Your task to perform on an android device: star an email in the gmail app Image 0: 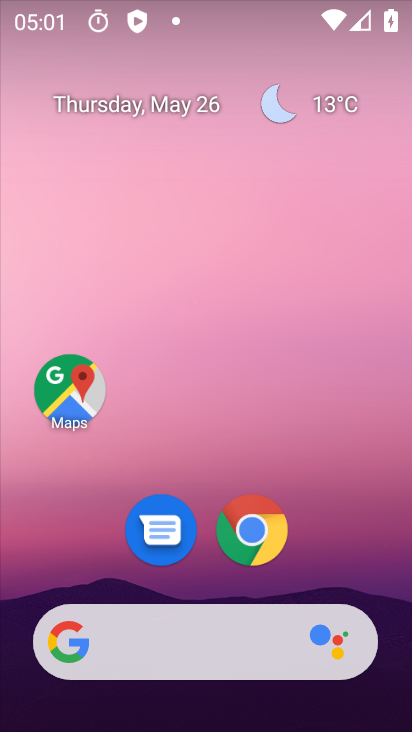
Step 0: drag from (237, 546) to (269, 5)
Your task to perform on an android device: star an email in the gmail app Image 1: 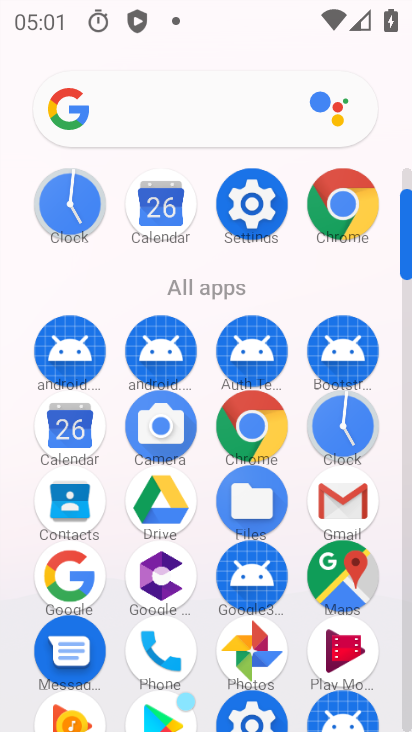
Step 1: click (334, 512)
Your task to perform on an android device: star an email in the gmail app Image 2: 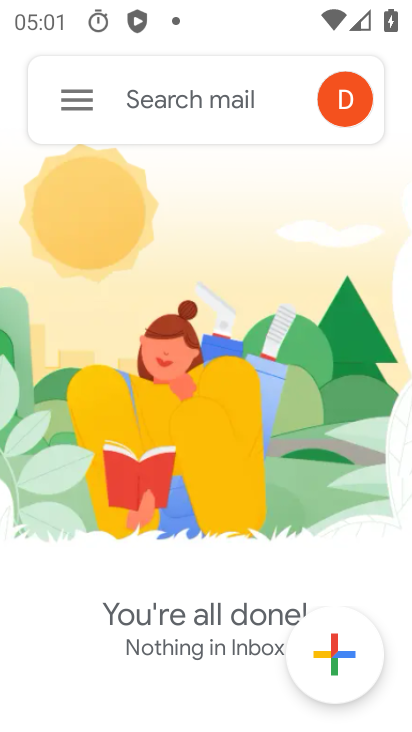
Step 2: click (109, 90)
Your task to perform on an android device: star an email in the gmail app Image 3: 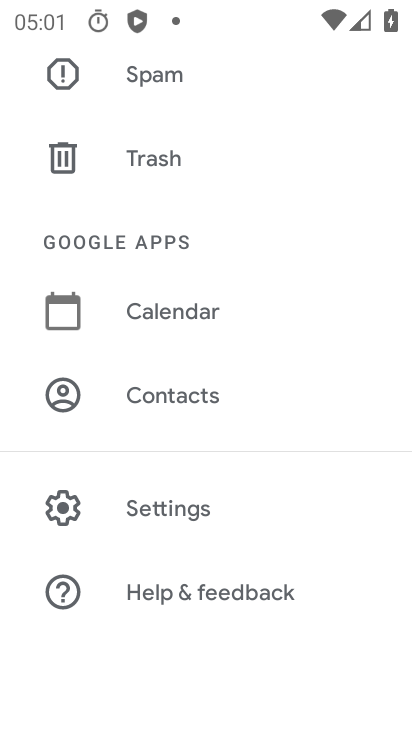
Step 3: drag from (206, 167) to (349, 720)
Your task to perform on an android device: star an email in the gmail app Image 4: 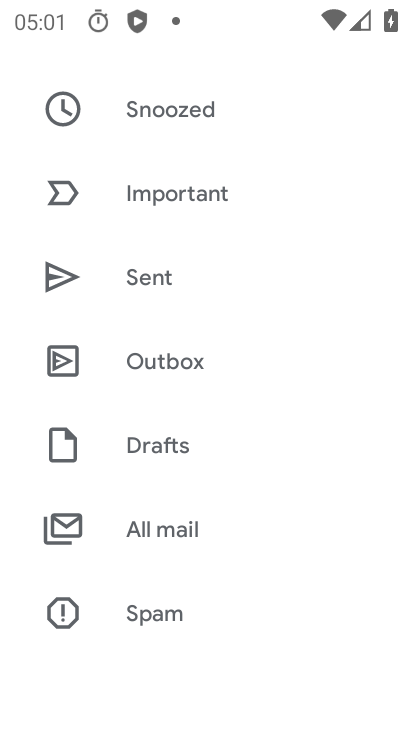
Step 4: drag from (192, 181) to (245, 666)
Your task to perform on an android device: star an email in the gmail app Image 5: 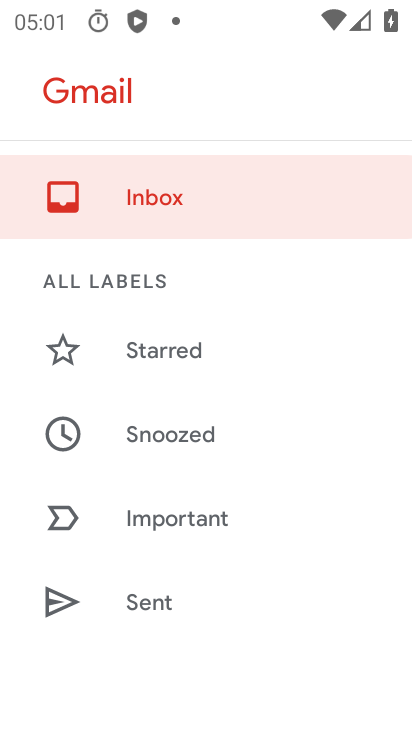
Step 5: click (192, 359)
Your task to perform on an android device: star an email in the gmail app Image 6: 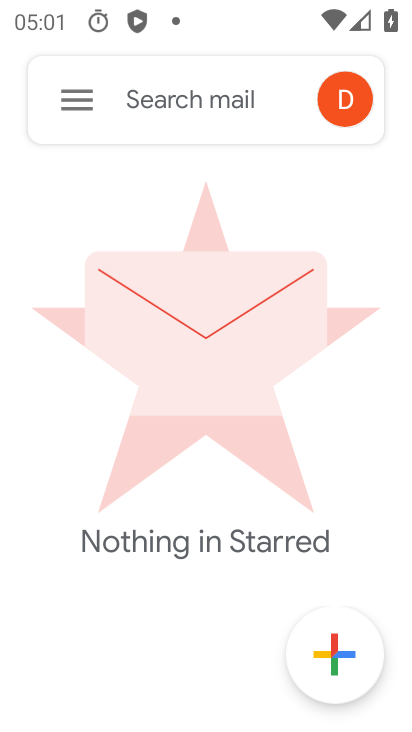
Step 6: task complete